Your task to perform on an android device: turn off translation in the chrome app Image 0: 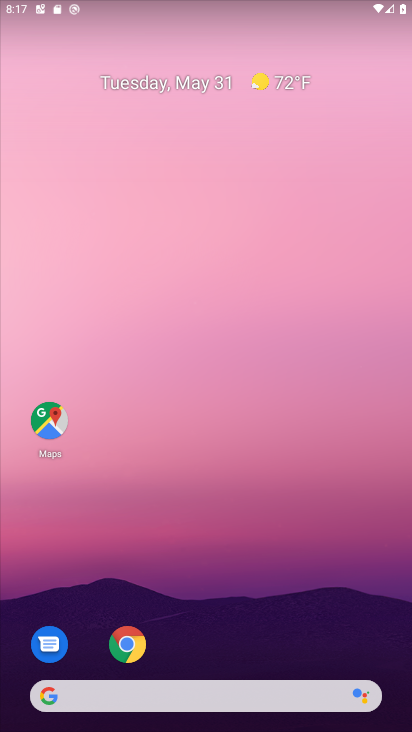
Step 0: press home button
Your task to perform on an android device: turn off translation in the chrome app Image 1: 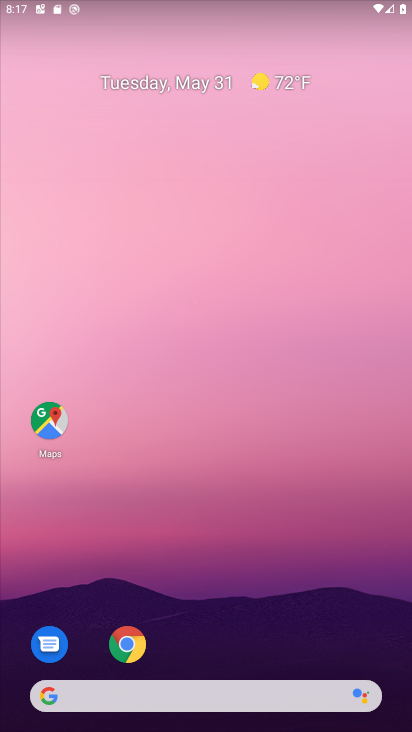
Step 1: click (128, 636)
Your task to perform on an android device: turn off translation in the chrome app Image 2: 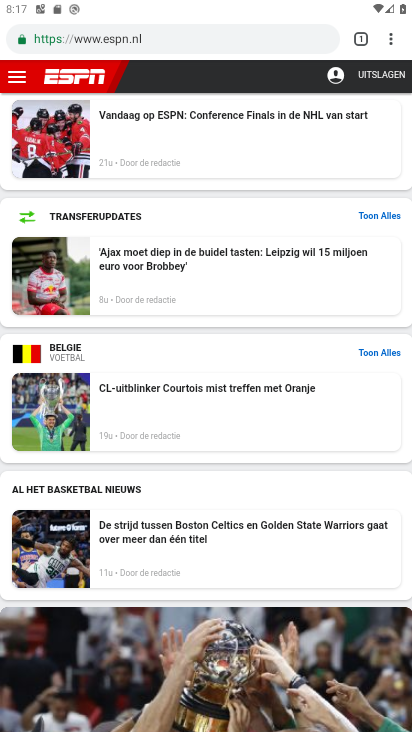
Step 2: click (395, 32)
Your task to perform on an android device: turn off translation in the chrome app Image 3: 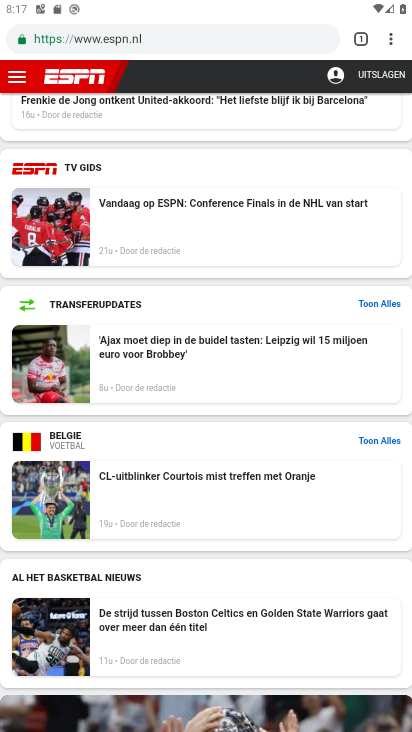
Step 3: click (391, 36)
Your task to perform on an android device: turn off translation in the chrome app Image 4: 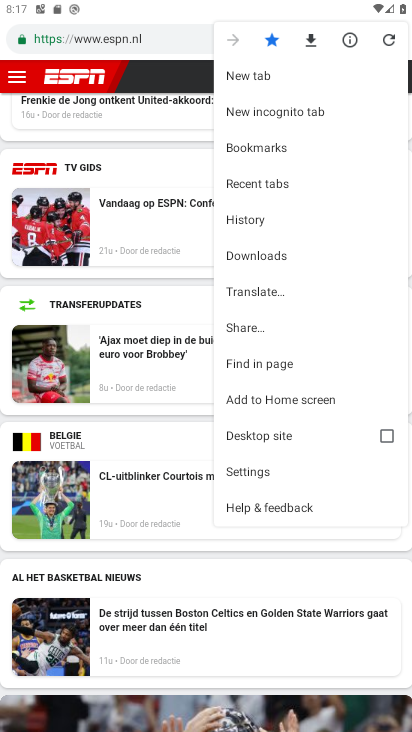
Step 4: click (276, 470)
Your task to perform on an android device: turn off translation in the chrome app Image 5: 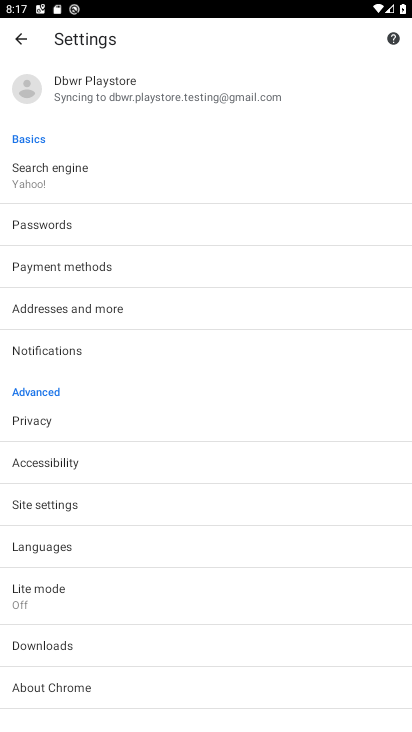
Step 5: click (86, 545)
Your task to perform on an android device: turn off translation in the chrome app Image 6: 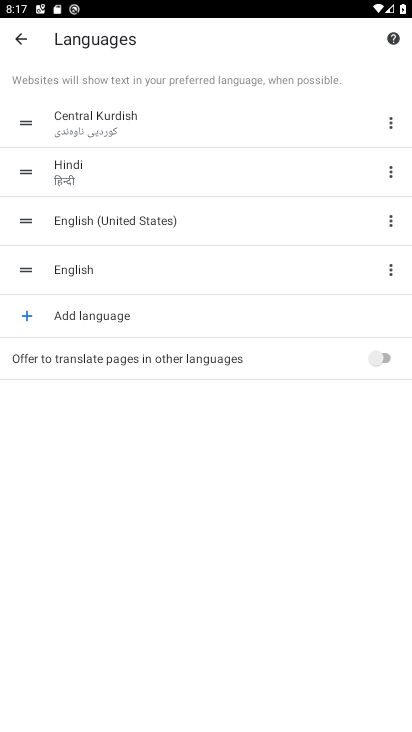
Step 6: task complete